Your task to perform on an android device: open wifi settings Image 0: 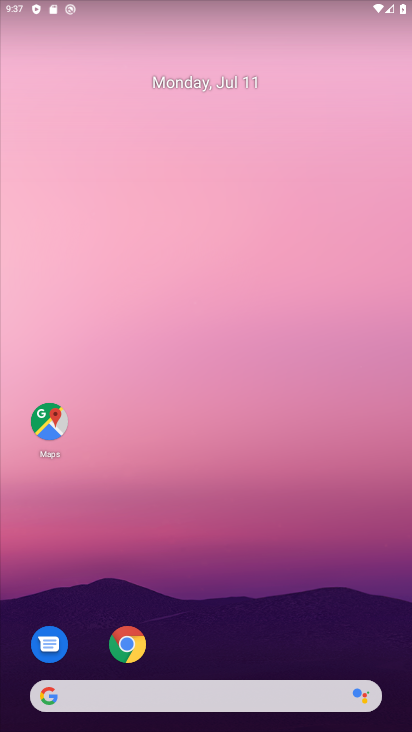
Step 0: drag from (256, 612) to (246, 345)
Your task to perform on an android device: open wifi settings Image 1: 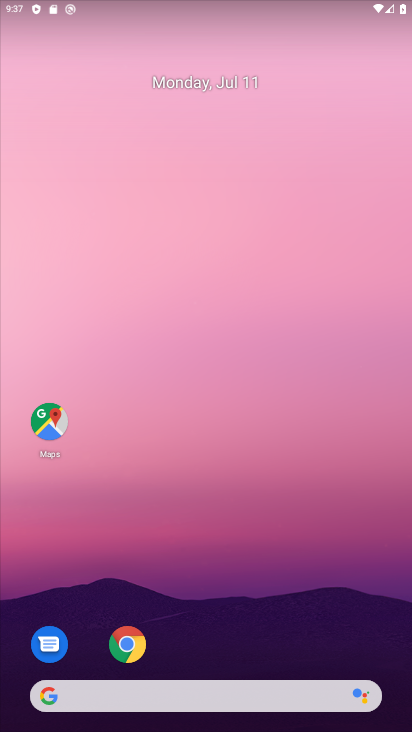
Step 1: drag from (257, 553) to (265, 12)
Your task to perform on an android device: open wifi settings Image 2: 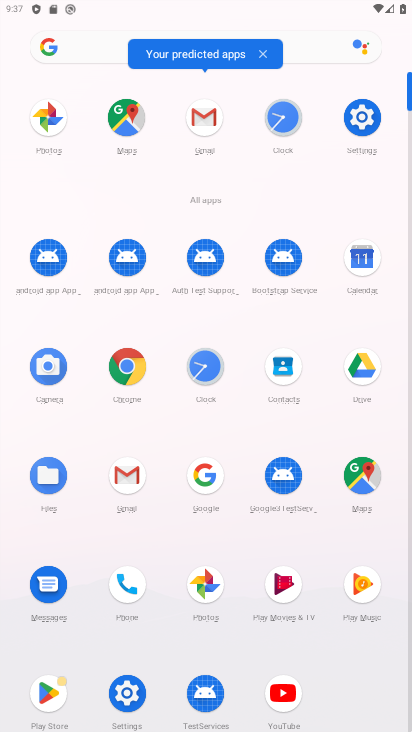
Step 2: click (359, 113)
Your task to perform on an android device: open wifi settings Image 3: 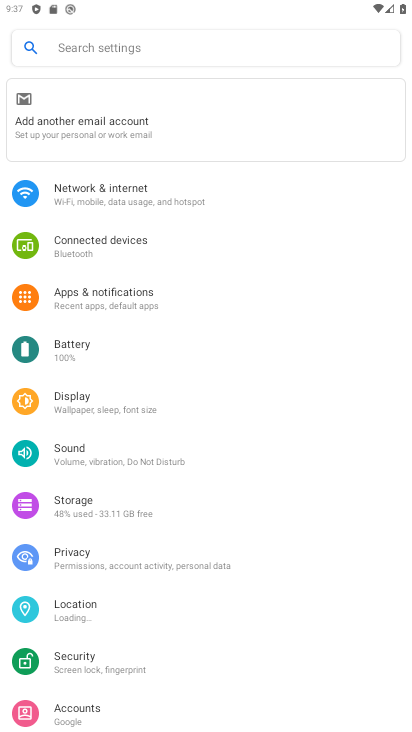
Step 3: click (137, 177)
Your task to perform on an android device: open wifi settings Image 4: 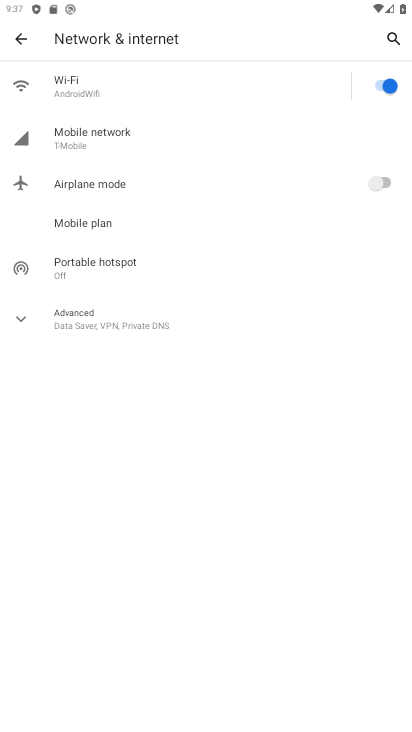
Step 4: click (115, 78)
Your task to perform on an android device: open wifi settings Image 5: 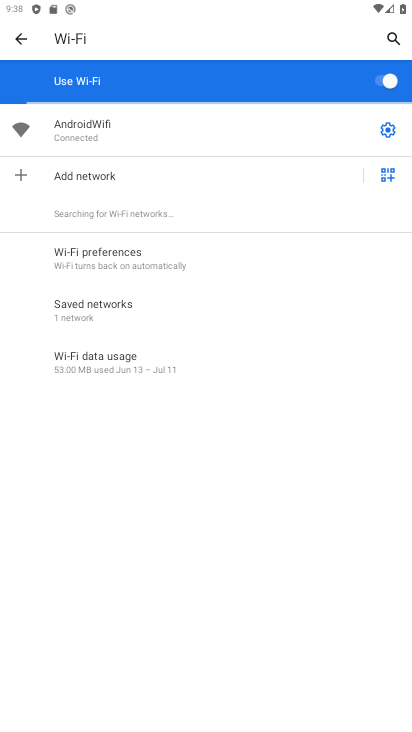
Step 5: task complete